Your task to perform on an android device: turn off translation in the chrome app Image 0: 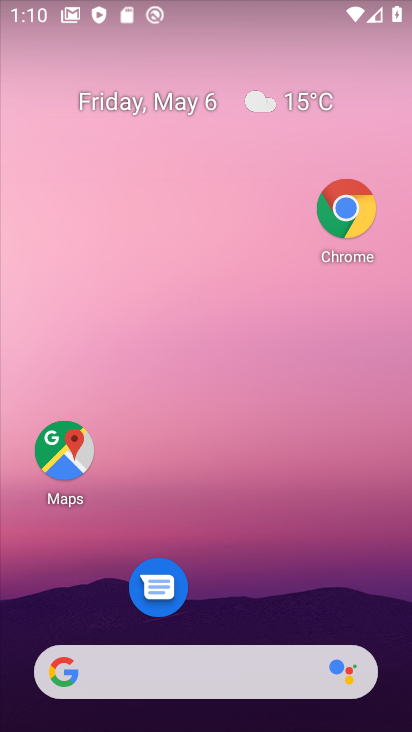
Step 0: drag from (268, 4) to (404, 39)
Your task to perform on an android device: turn off translation in the chrome app Image 1: 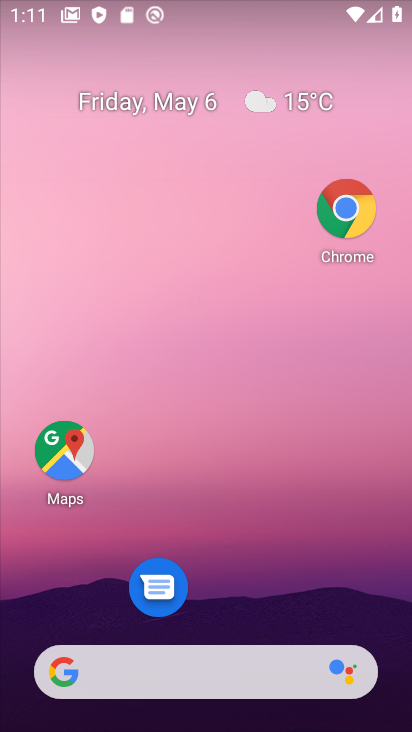
Step 1: drag from (354, 621) to (303, 30)
Your task to perform on an android device: turn off translation in the chrome app Image 2: 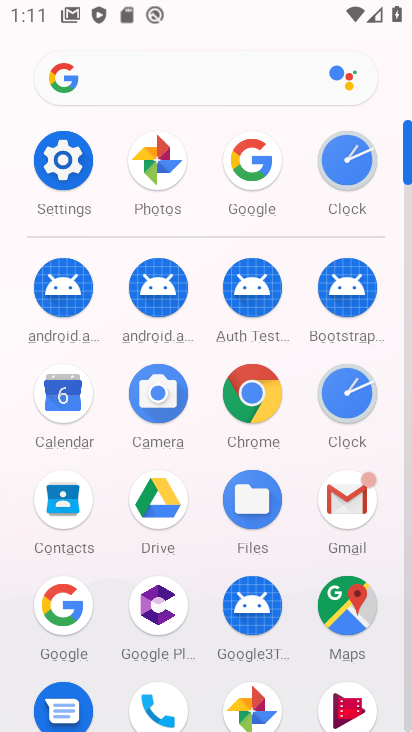
Step 2: click (232, 429)
Your task to perform on an android device: turn off translation in the chrome app Image 3: 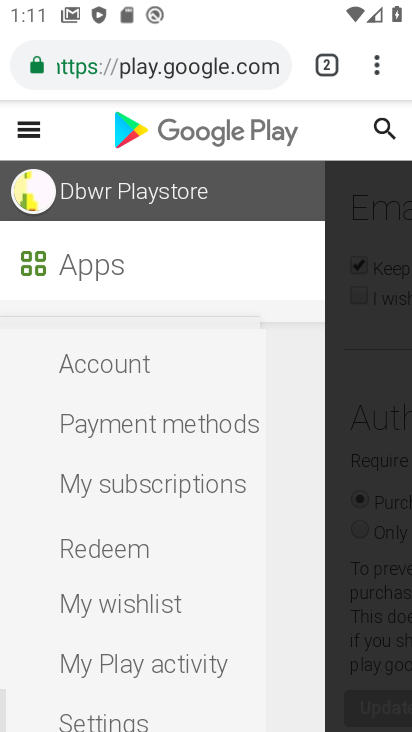
Step 3: click (375, 70)
Your task to perform on an android device: turn off translation in the chrome app Image 4: 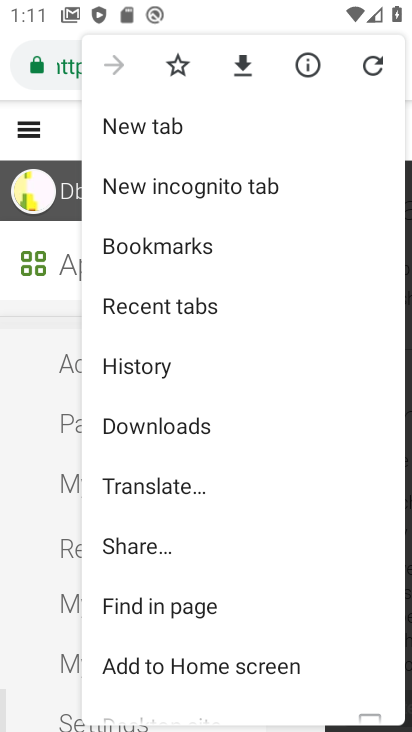
Step 4: drag from (193, 626) to (230, 223)
Your task to perform on an android device: turn off translation in the chrome app Image 5: 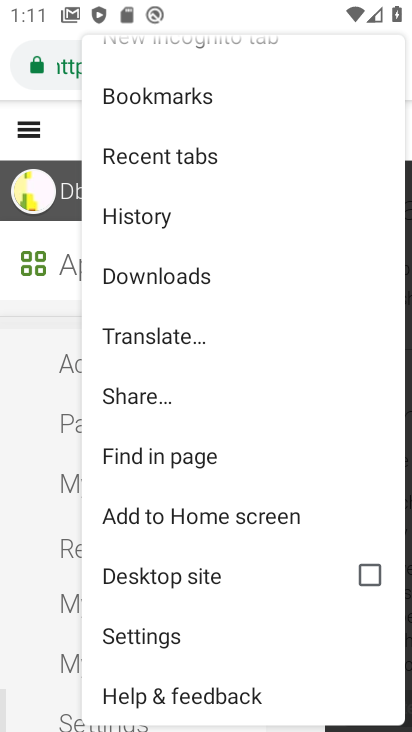
Step 5: click (133, 646)
Your task to perform on an android device: turn off translation in the chrome app Image 6: 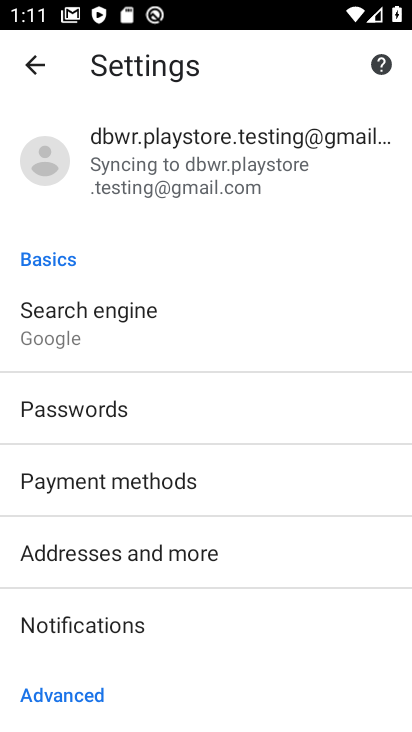
Step 6: drag from (157, 301) to (154, 175)
Your task to perform on an android device: turn off translation in the chrome app Image 7: 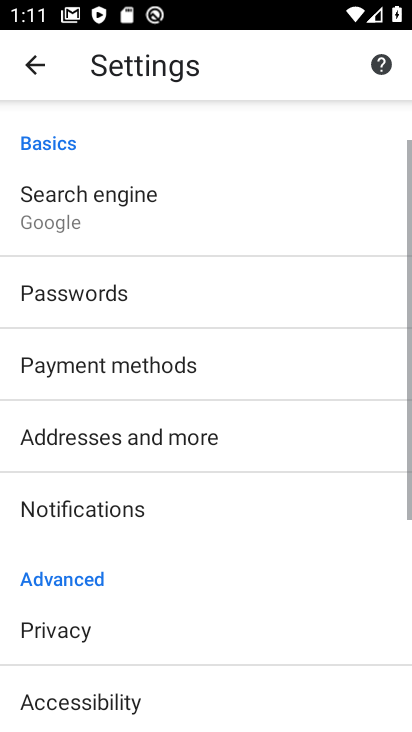
Step 7: drag from (256, 595) to (222, 172)
Your task to perform on an android device: turn off translation in the chrome app Image 8: 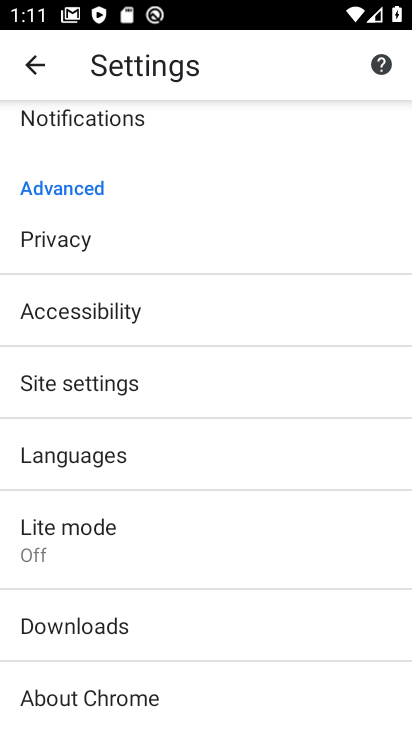
Step 8: click (85, 458)
Your task to perform on an android device: turn off translation in the chrome app Image 9: 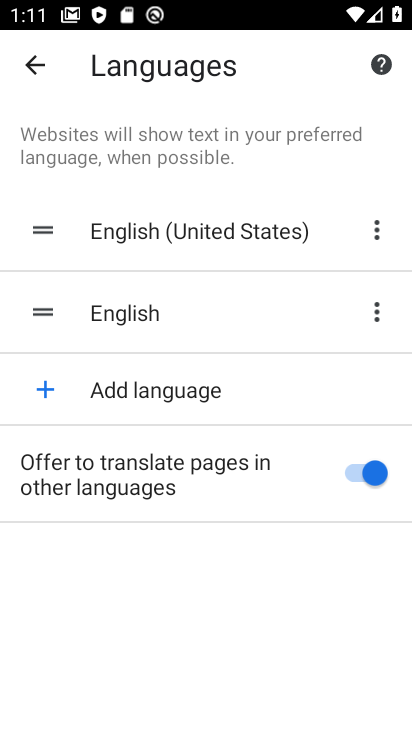
Step 9: click (354, 480)
Your task to perform on an android device: turn off translation in the chrome app Image 10: 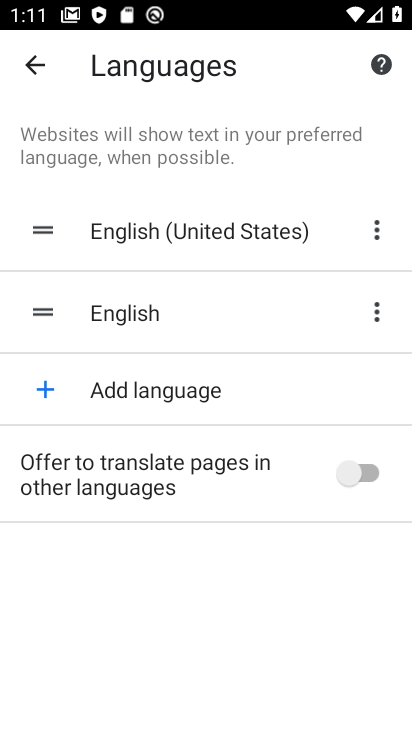
Step 10: task complete